Your task to perform on an android device: Go to Yahoo.com Image 0: 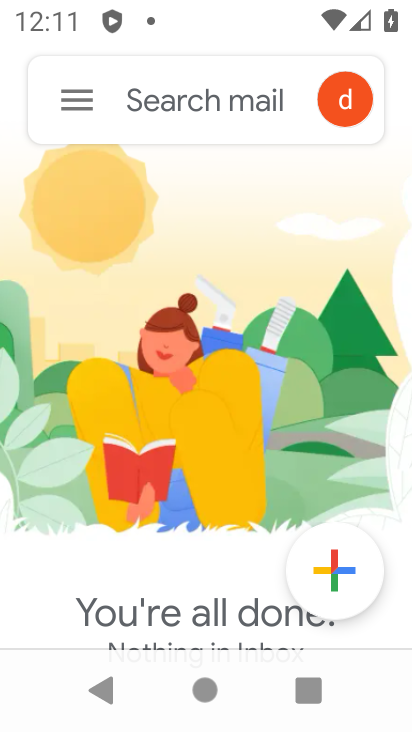
Step 0: press home button
Your task to perform on an android device: Go to Yahoo.com Image 1: 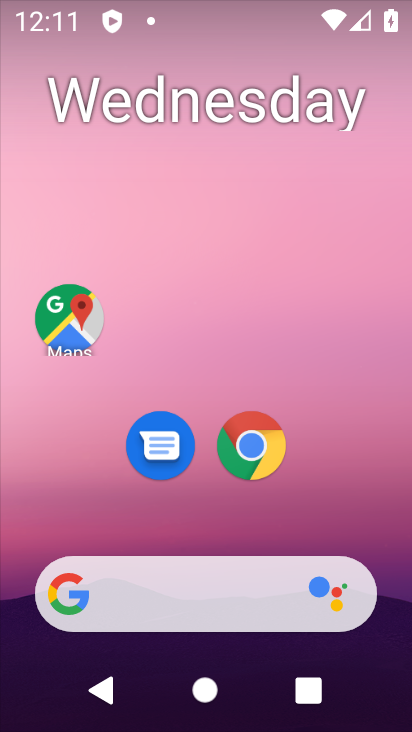
Step 1: click (247, 430)
Your task to perform on an android device: Go to Yahoo.com Image 2: 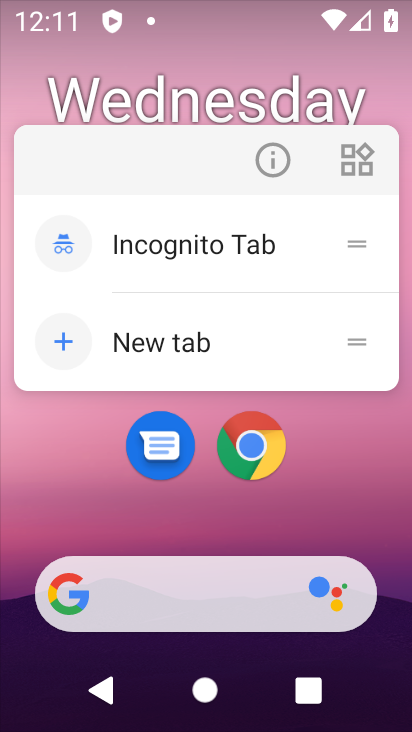
Step 2: click (260, 441)
Your task to perform on an android device: Go to Yahoo.com Image 3: 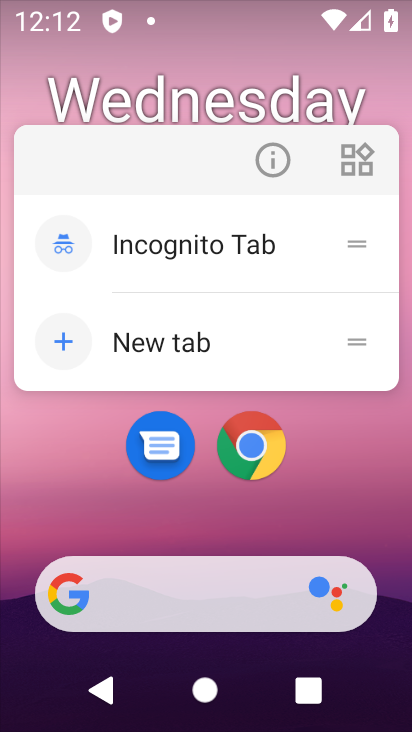
Step 3: click (241, 442)
Your task to perform on an android device: Go to Yahoo.com Image 4: 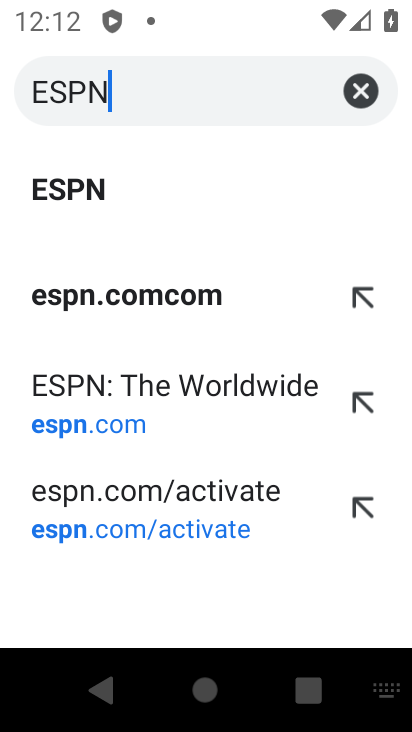
Step 4: click (371, 104)
Your task to perform on an android device: Go to Yahoo.com Image 5: 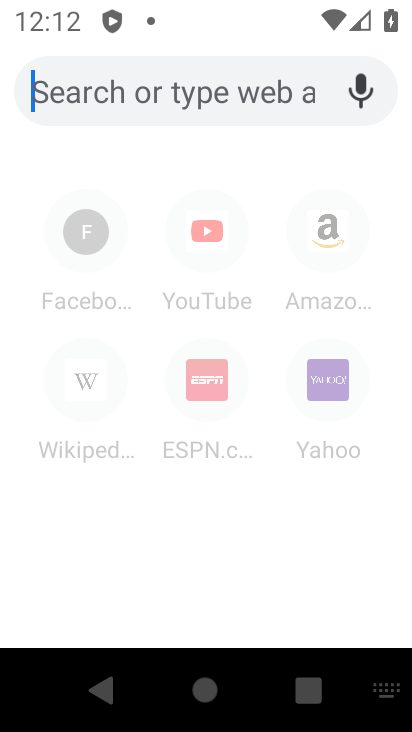
Step 5: type "Yahoo.com"
Your task to perform on an android device: Go to Yahoo.com Image 6: 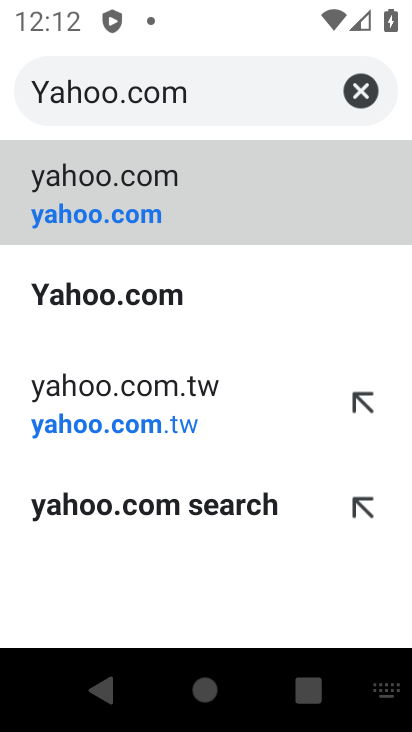
Step 6: click (196, 214)
Your task to perform on an android device: Go to Yahoo.com Image 7: 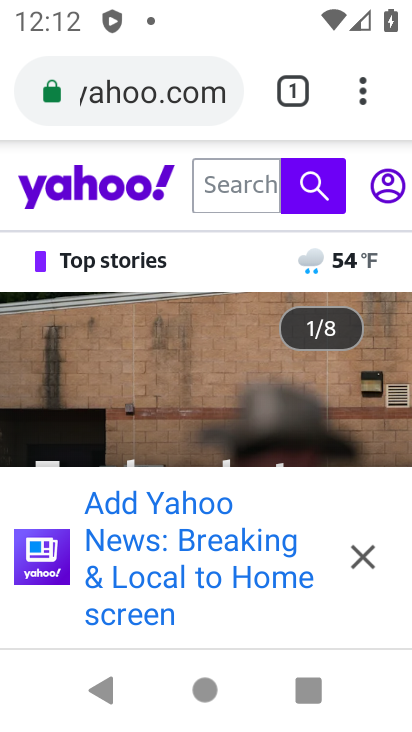
Step 7: task complete